Your task to perform on an android device: turn off javascript in the chrome app Image 0: 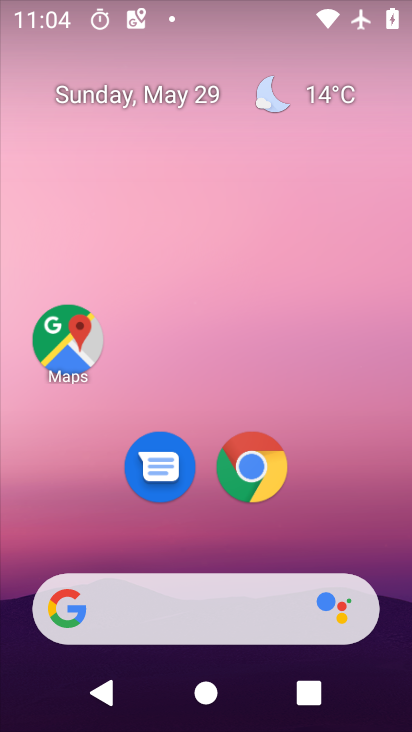
Step 0: click (233, 486)
Your task to perform on an android device: turn off javascript in the chrome app Image 1: 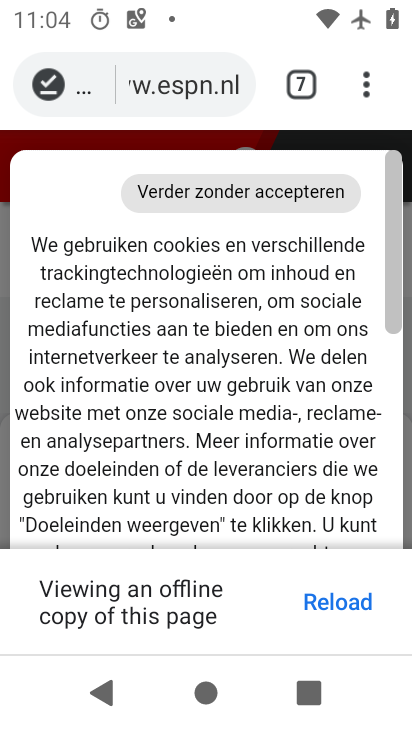
Step 1: click (371, 101)
Your task to perform on an android device: turn off javascript in the chrome app Image 2: 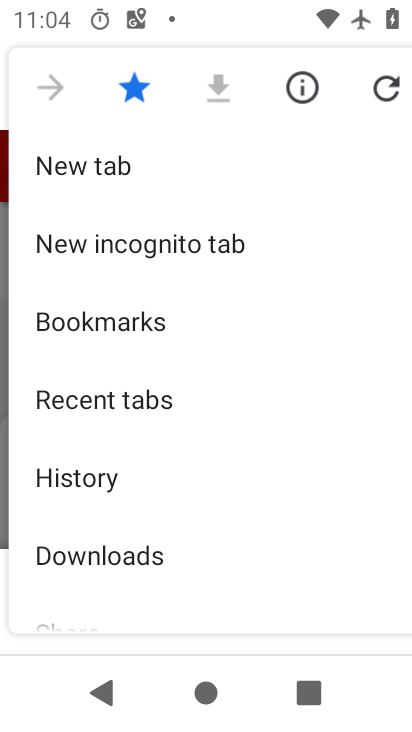
Step 2: drag from (184, 541) to (168, 270)
Your task to perform on an android device: turn off javascript in the chrome app Image 3: 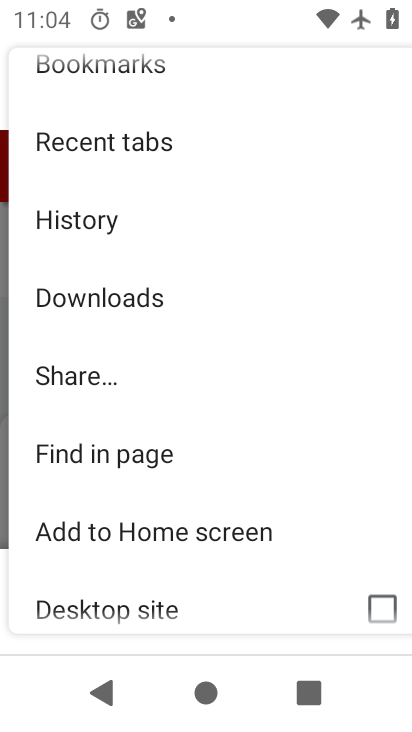
Step 3: drag from (159, 510) to (182, 234)
Your task to perform on an android device: turn off javascript in the chrome app Image 4: 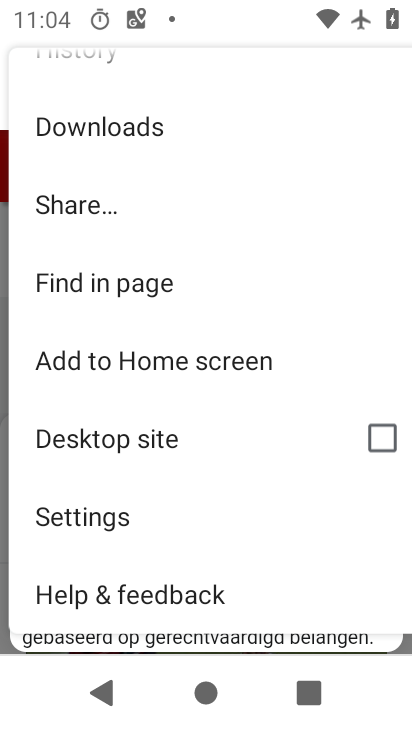
Step 4: drag from (182, 529) to (200, 335)
Your task to perform on an android device: turn off javascript in the chrome app Image 5: 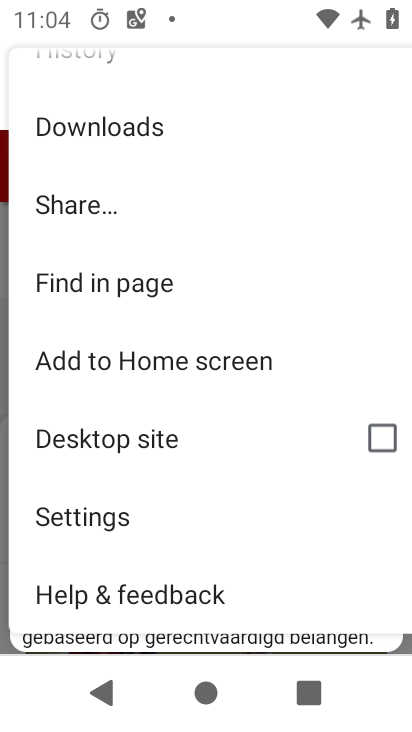
Step 5: click (127, 521)
Your task to perform on an android device: turn off javascript in the chrome app Image 6: 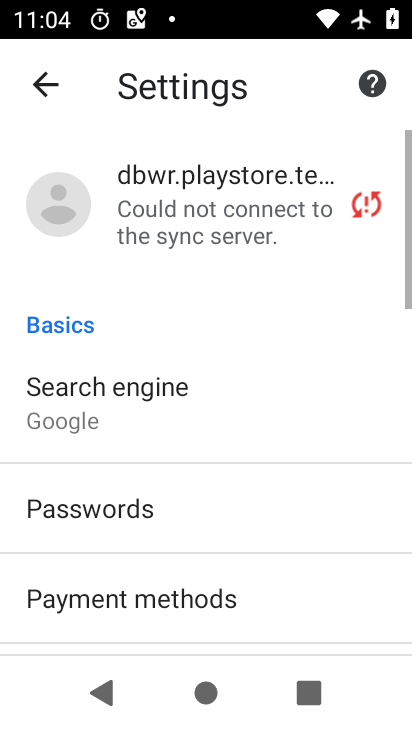
Step 6: drag from (180, 566) to (217, 230)
Your task to perform on an android device: turn off javascript in the chrome app Image 7: 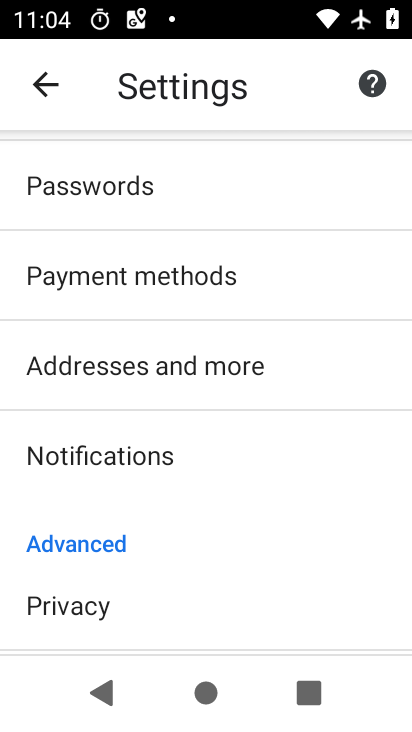
Step 7: drag from (215, 499) to (223, 202)
Your task to perform on an android device: turn off javascript in the chrome app Image 8: 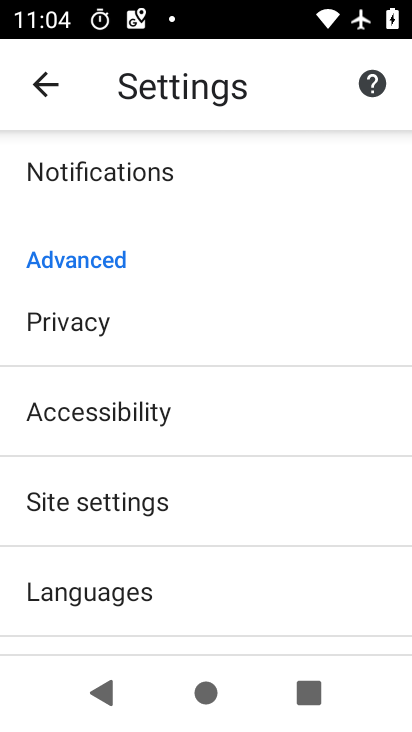
Step 8: drag from (218, 482) to (230, 255)
Your task to perform on an android device: turn off javascript in the chrome app Image 9: 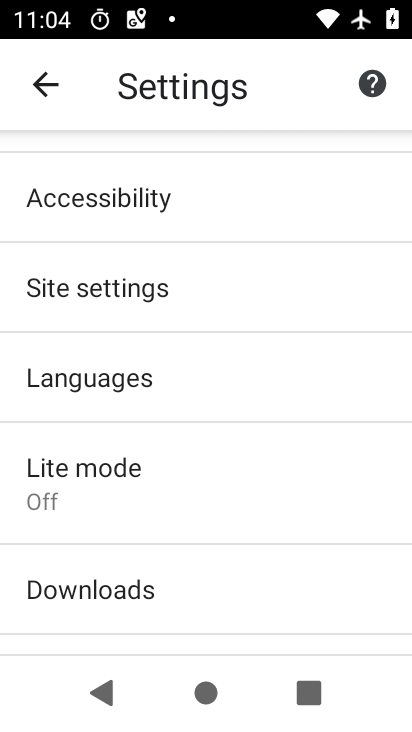
Step 9: drag from (200, 293) to (230, 185)
Your task to perform on an android device: turn off javascript in the chrome app Image 10: 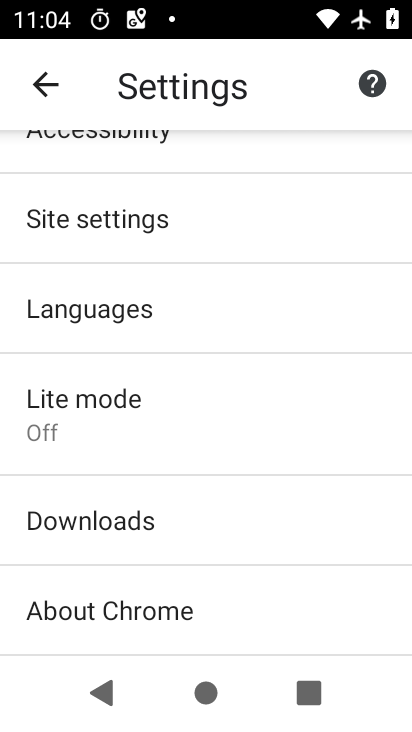
Step 10: click (220, 213)
Your task to perform on an android device: turn off javascript in the chrome app Image 11: 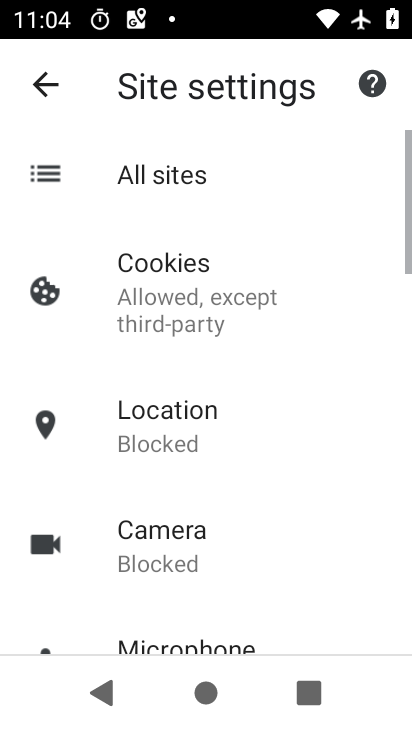
Step 11: drag from (183, 581) to (183, 243)
Your task to perform on an android device: turn off javascript in the chrome app Image 12: 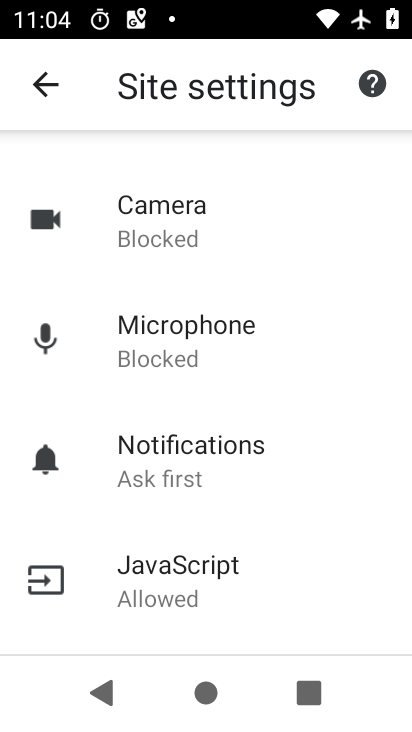
Step 12: click (222, 598)
Your task to perform on an android device: turn off javascript in the chrome app Image 13: 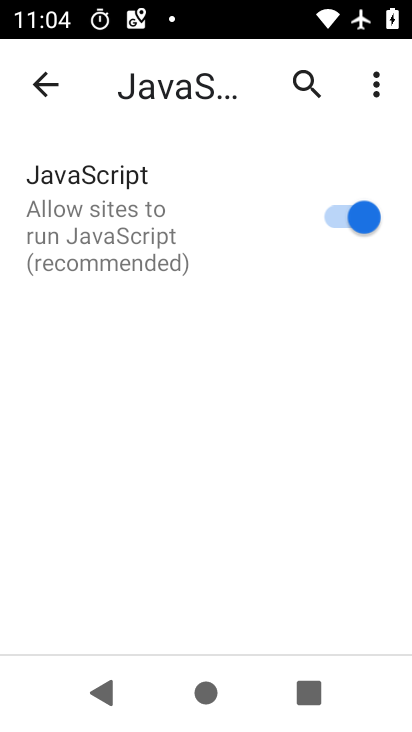
Step 13: click (337, 227)
Your task to perform on an android device: turn off javascript in the chrome app Image 14: 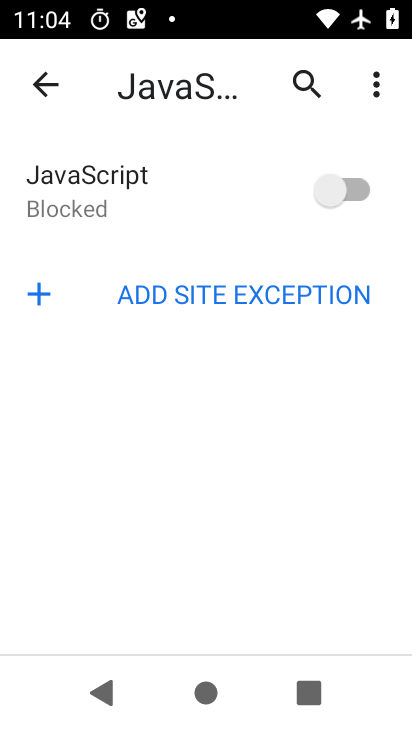
Step 14: task complete